Your task to perform on an android device: open wifi settings Image 0: 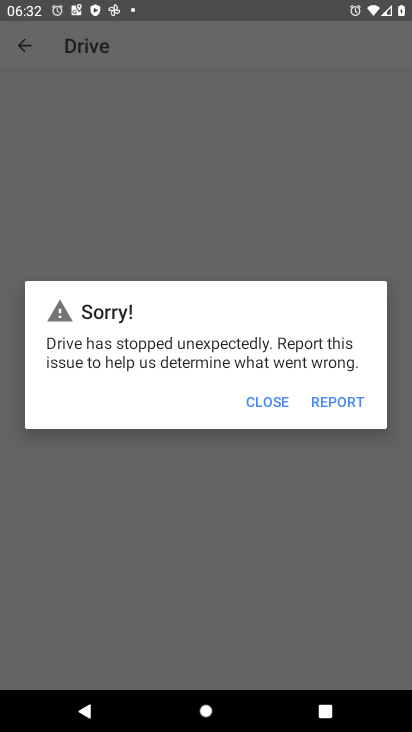
Step 0: press back button
Your task to perform on an android device: open wifi settings Image 1: 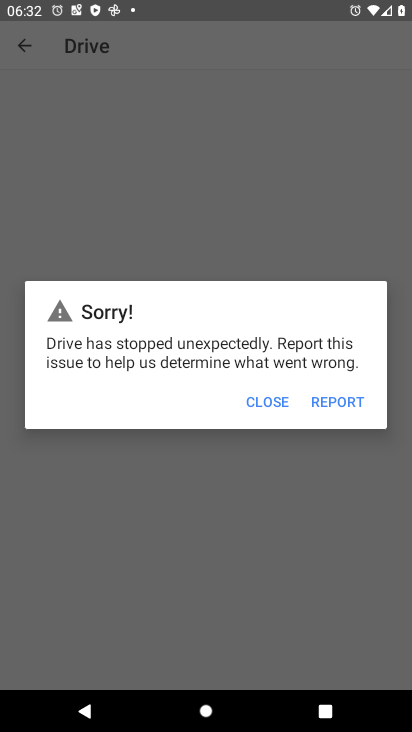
Step 1: press back button
Your task to perform on an android device: open wifi settings Image 2: 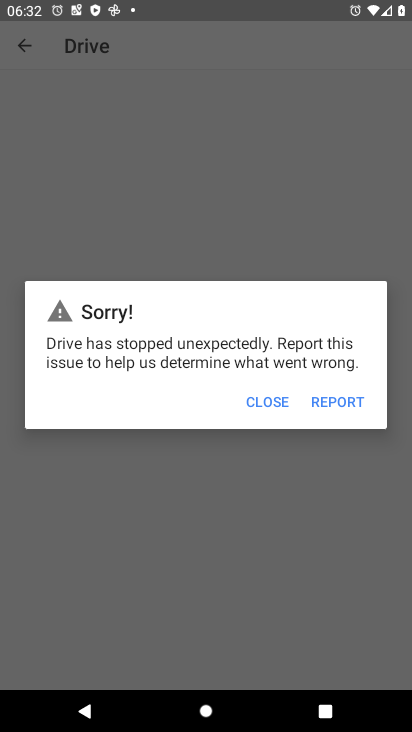
Step 2: press home button
Your task to perform on an android device: open wifi settings Image 3: 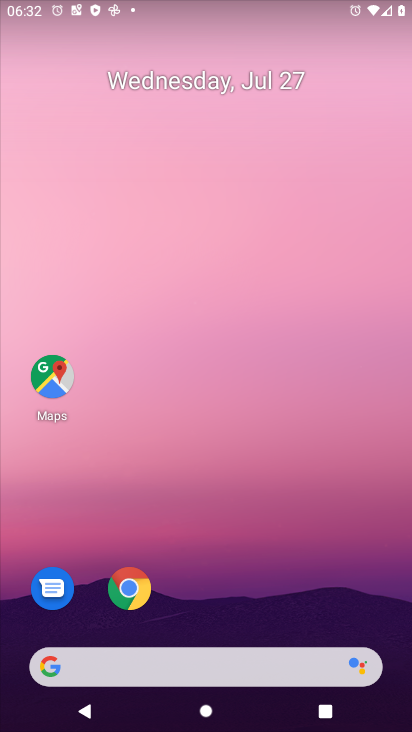
Step 3: drag from (191, 597) to (203, 220)
Your task to perform on an android device: open wifi settings Image 4: 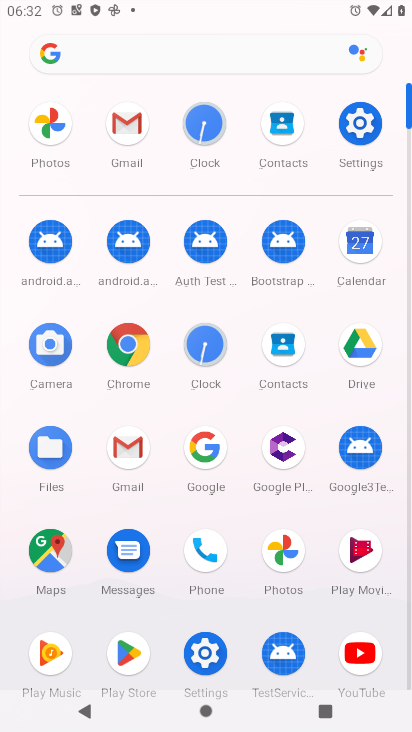
Step 4: click (361, 115)
Your task to perform on an android device: open wifi settings Image 5: 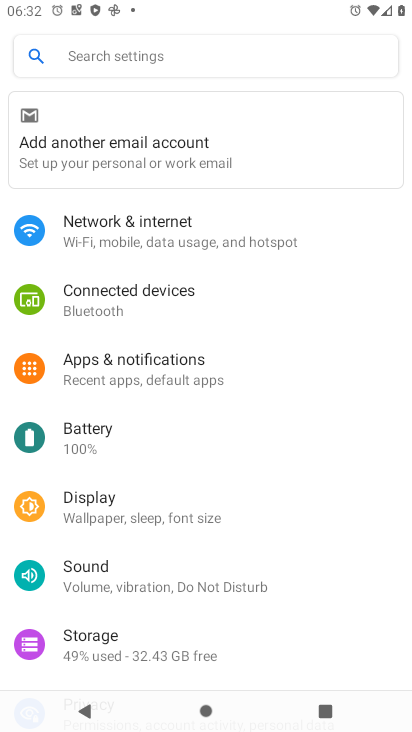
Step 5: click (111, 223)
Your task to perform on an android device: open wifi settings Image 6: 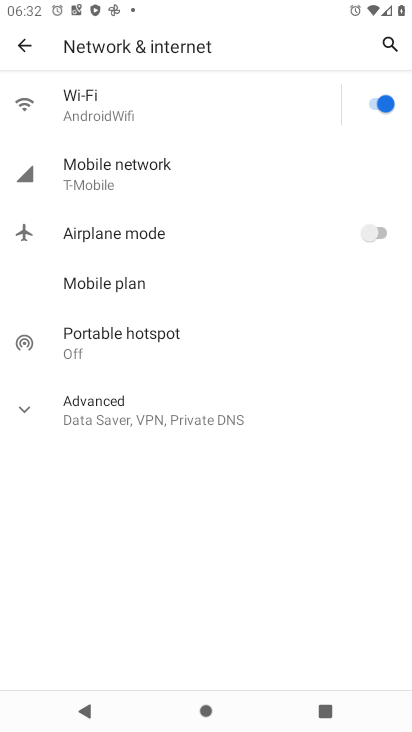
Step 6: click (96, 121)
Your task to perform on an android device: open wifi settings Image 7: 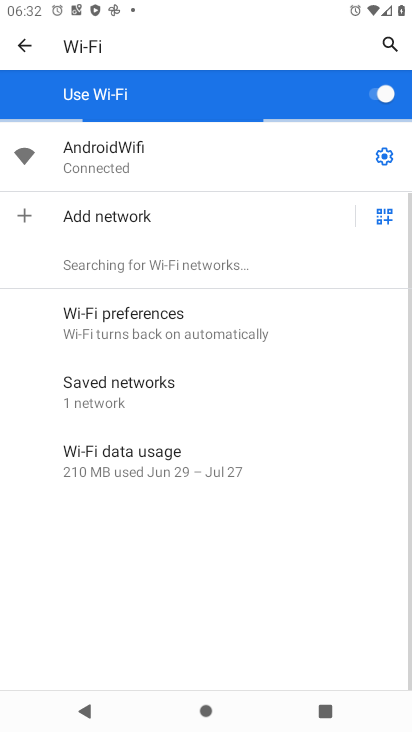
Step 7: task complete